Your task to perform on an android device: Open battery settings Image 0: 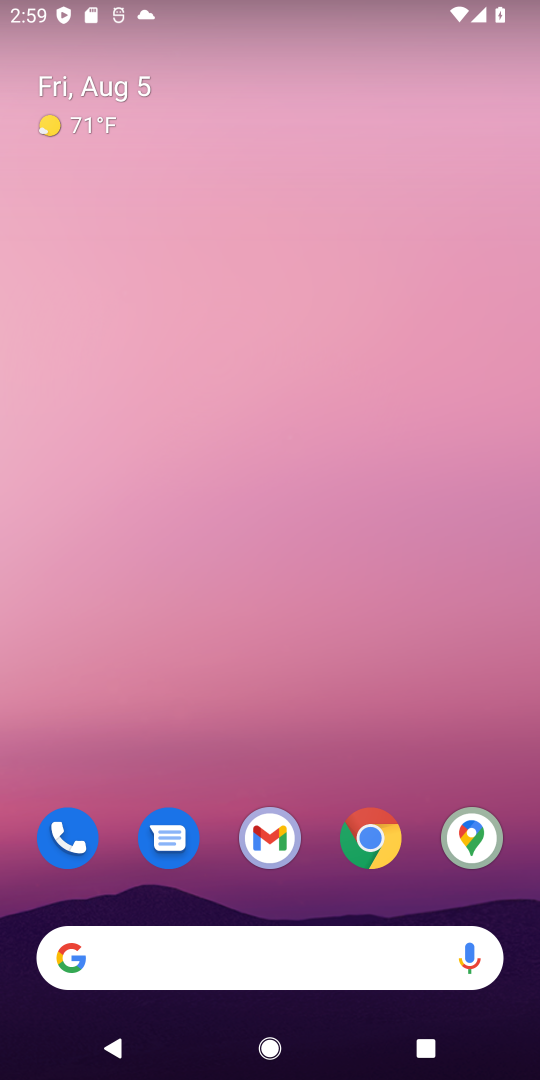
Step 0: drag from (409, 784) to (310, 120)
Your task to perform on an android device: Open battery settings Image 1: 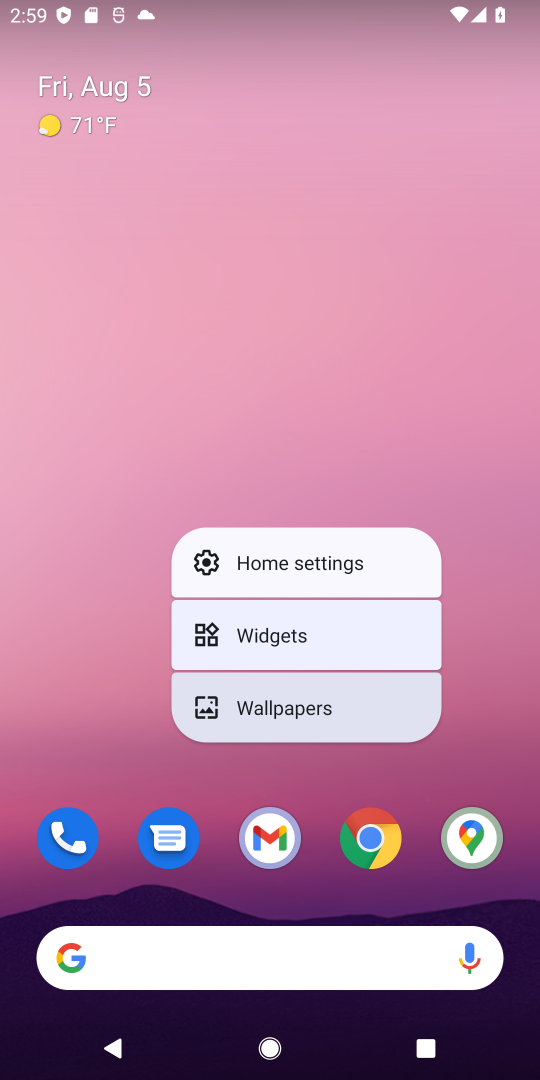
Step 1: drag from (524, 917) to (389, 340)
Your task to perform on an android device: Open battery settings Image 2: 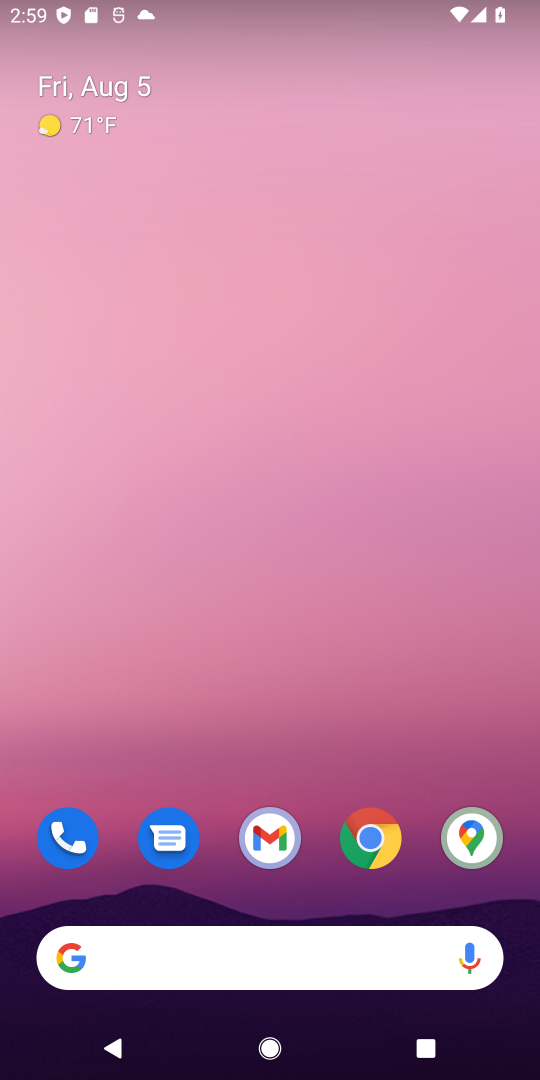
Step 2: drag from (336, 910) to (286, 153)
Your task to perform on an android device: Open battery settings Image 3: 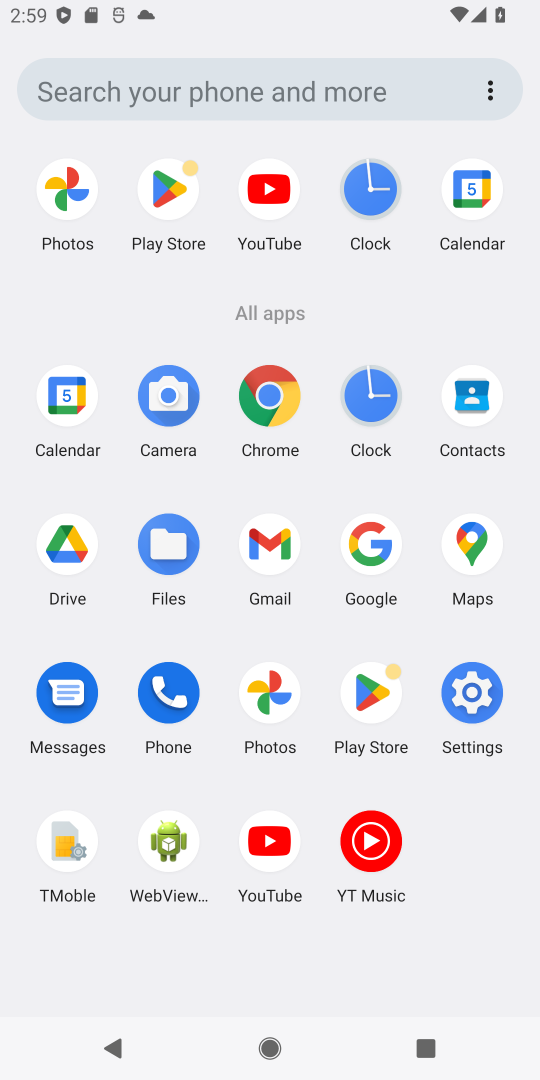
Step 3: click (478, 713)
Your task to perform on an android device: Open battery settings Image 4: 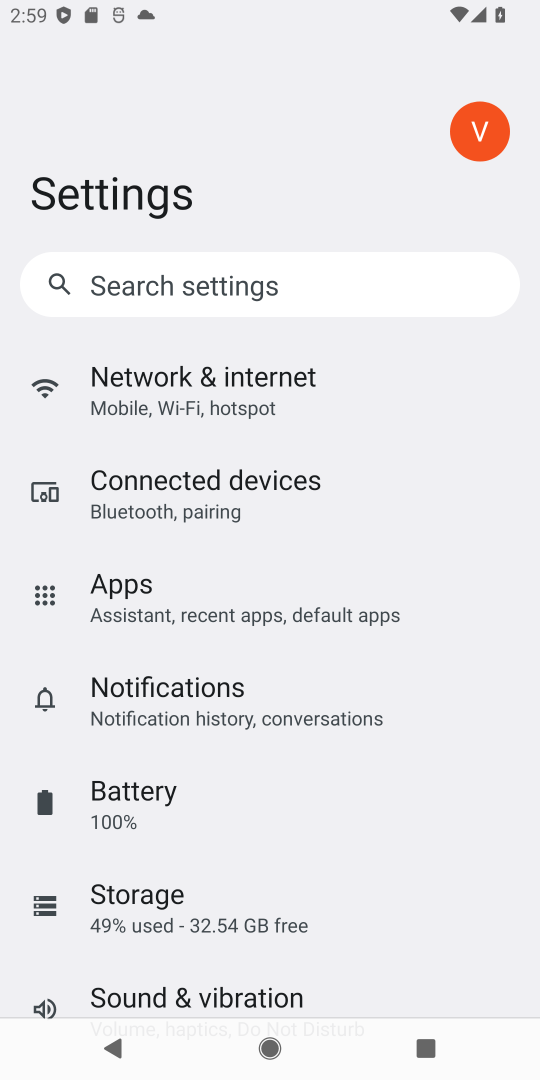
Step 4: click (386, 811)
Your task to perform on an android device: Open battery settings Image 5: 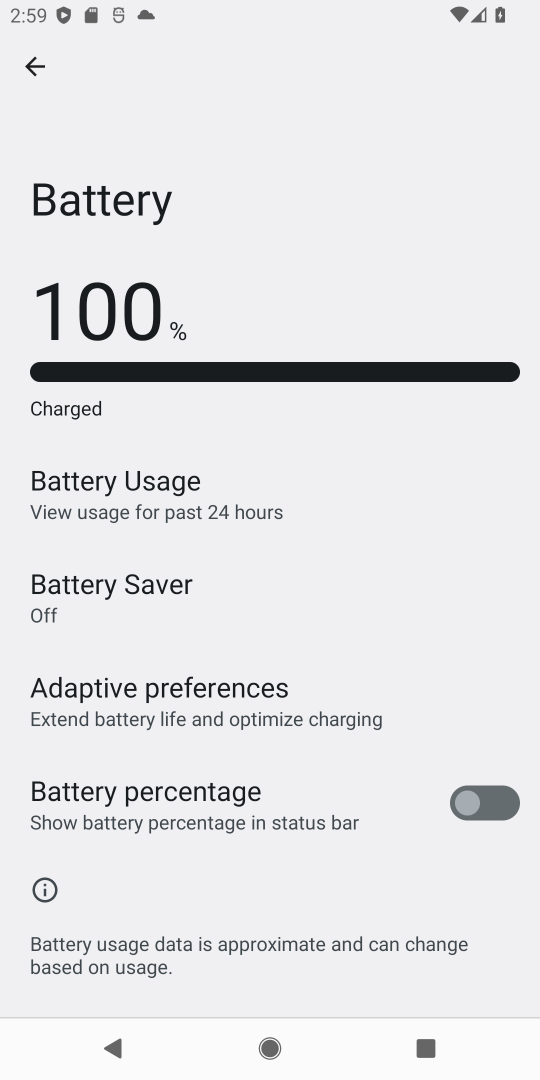
Step 5: task complete